Your task to perform on an android device: Go to Amazon Image 0: 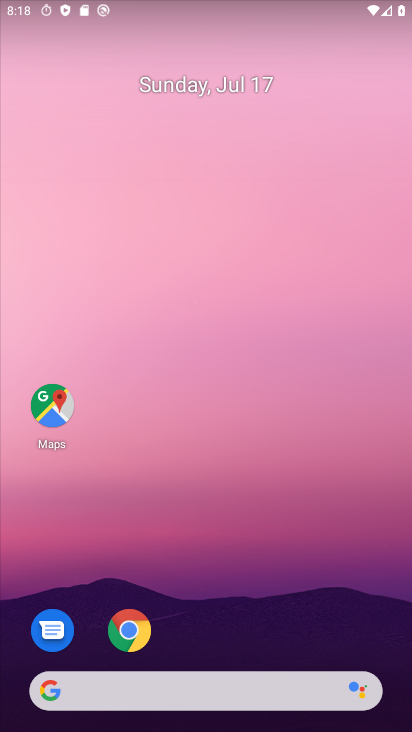
Step 0: click (117, 700)
Your task to perform on an android device: Go to Amazon Image 1: 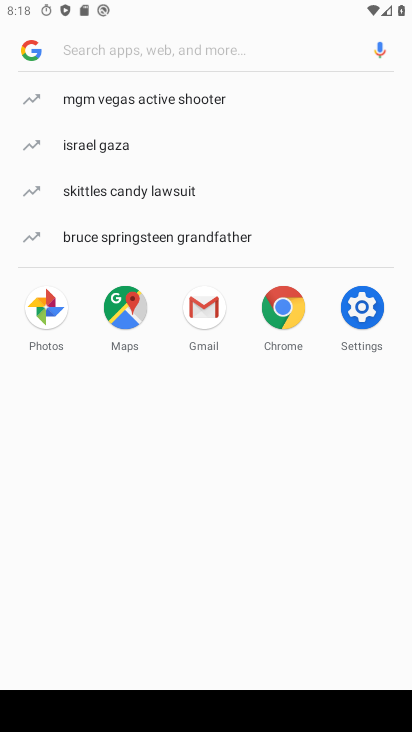
Step 1: type "Amazon"
Your task to perform on an android device: Go to Amazon Image 2: 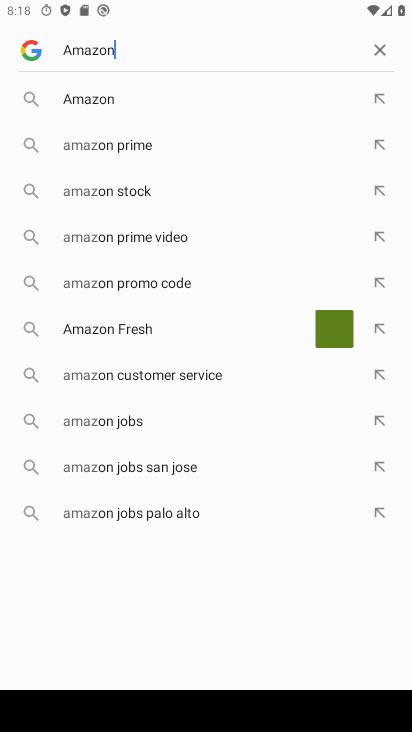
Step 2: type ""
Your task to perform on an android device: Go to Amazon Image 3: 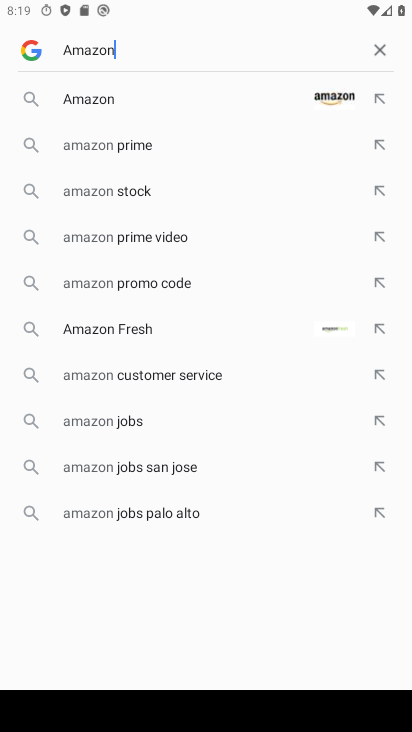
Step 3: click (91, 103)
Your task to perform on an android device: Go to Amazon Image 4: 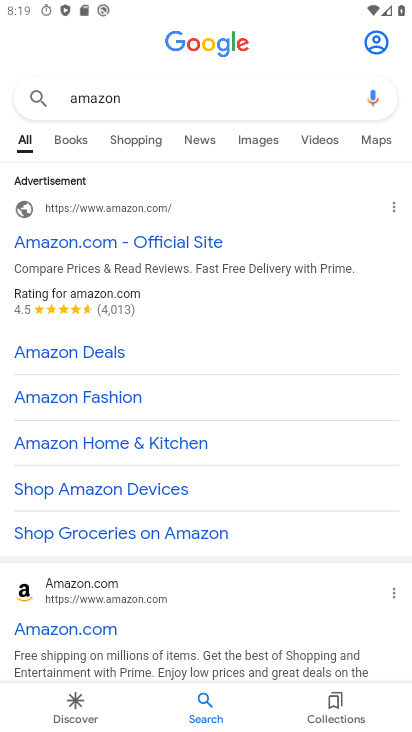
Step 4: task complete